Your task to perform on an android device: open app "Indeed Job Search" (install if not already installed) and enter user name: "quixotic@inbox.com" and password: "microphones" Image 0: 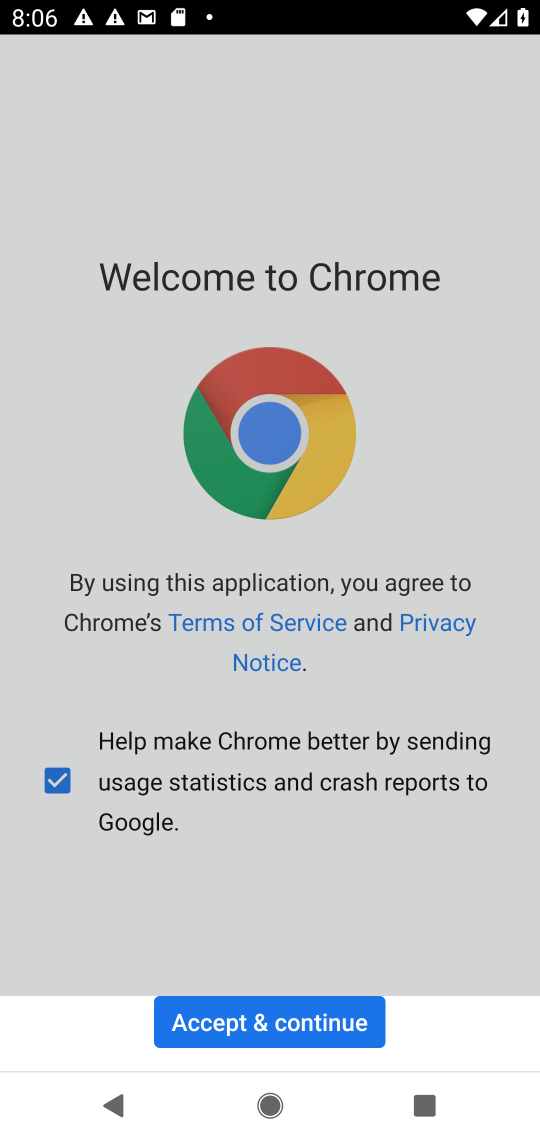
Step 0: press home button
Your task to perform on an android device: open app "Indeed Job Search" (install if not already installed) and enter user name: "quixotic@inbox.com" and password: "microphones" Image 1: 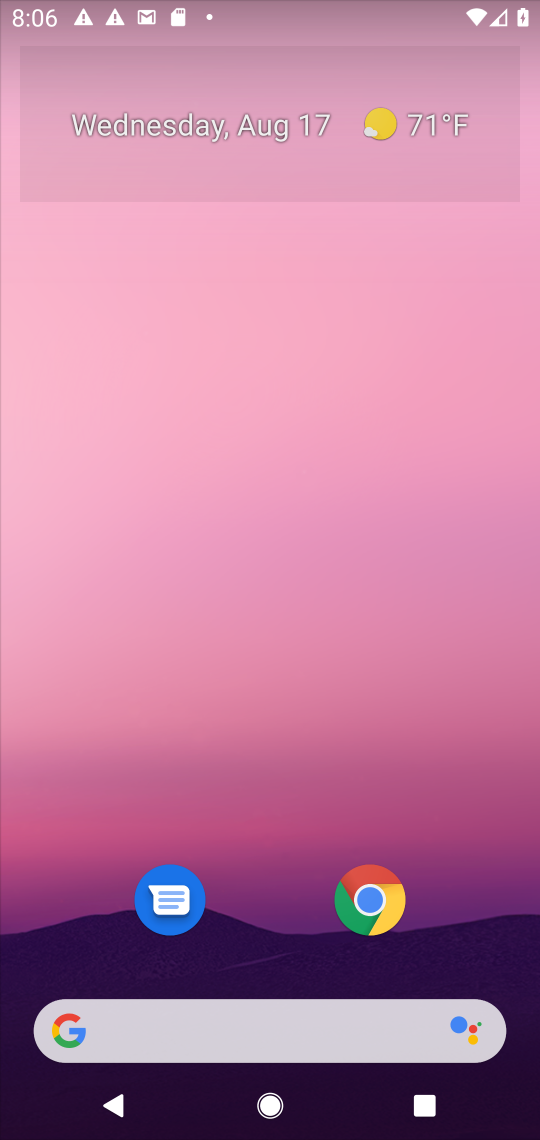
Step 1: drag from (184, 642) to (103, 2)
Your task to perform on an android device: open app "Indeed Job Search" (install if not already installed) and enter user name: "quixotic@inbox.com" and password: "microphones" Image 2: 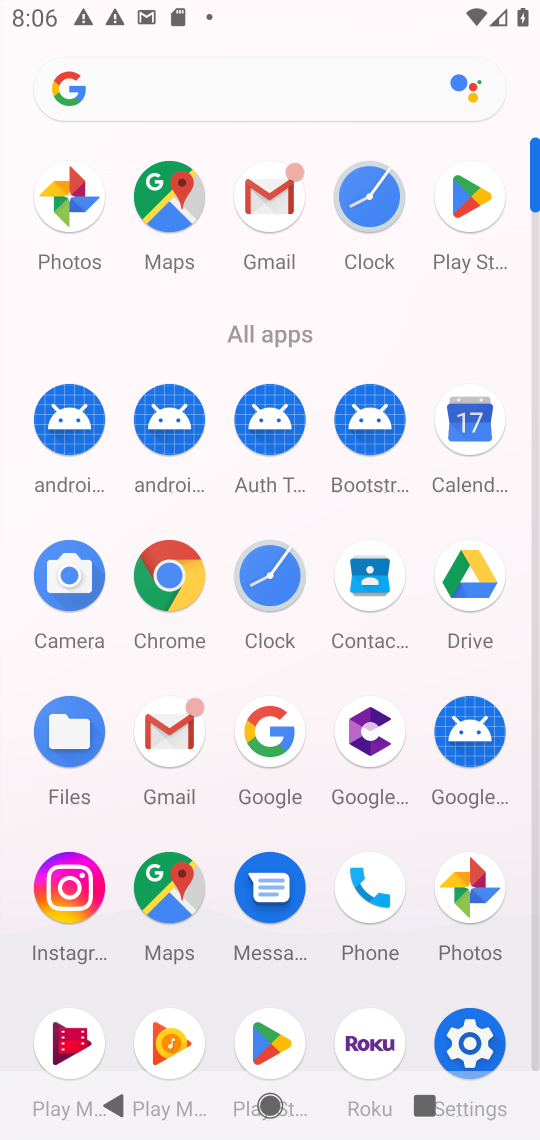
Step 2: click (465, 194)
Your task to perform on an android device: open app "Indeed Job Search" (install if not already installed) and enter user name: "quixotic@inbox.com" and password: "microphones" Image 3: 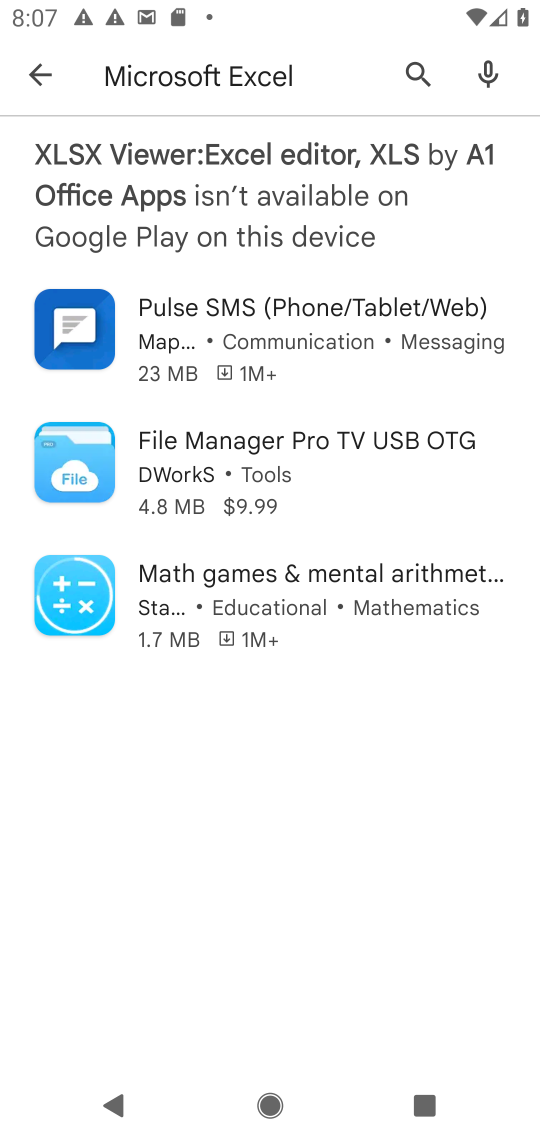
Step 3: click (33, 100)
Your task to perform on an android device: open app "Indeed Job Search" (install if not already installed) and enter user name: "quixotic@inbox.com" and password: "microphones" Image 4: 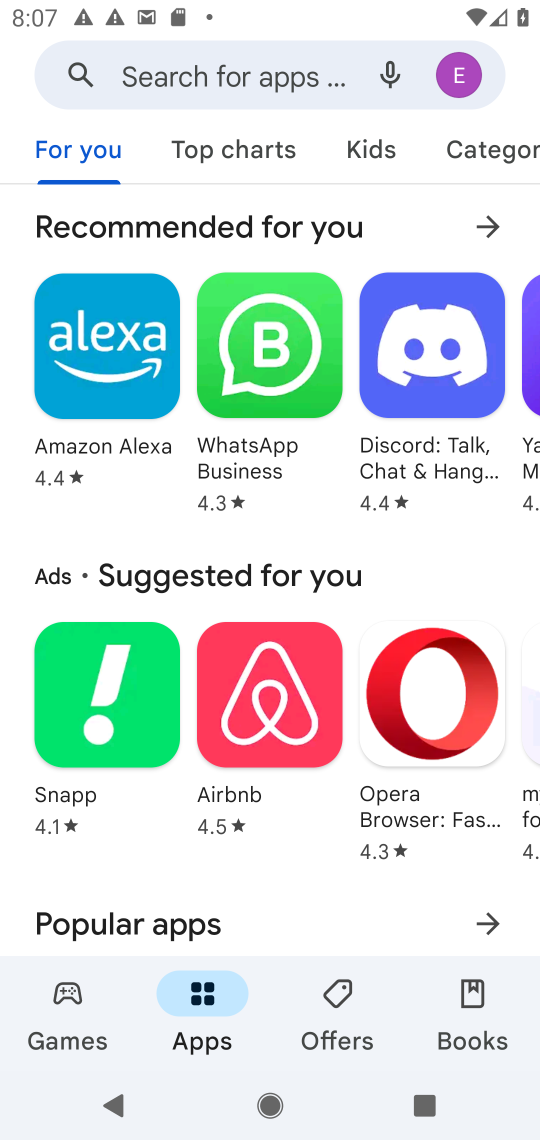
Step 4: click (225, 84)
Your task to perform on an android device: open app "Indeed Job Search" (install if not already installed) and enter user name: "quixotic@inbox.com" and password: "microphones" Image 5: 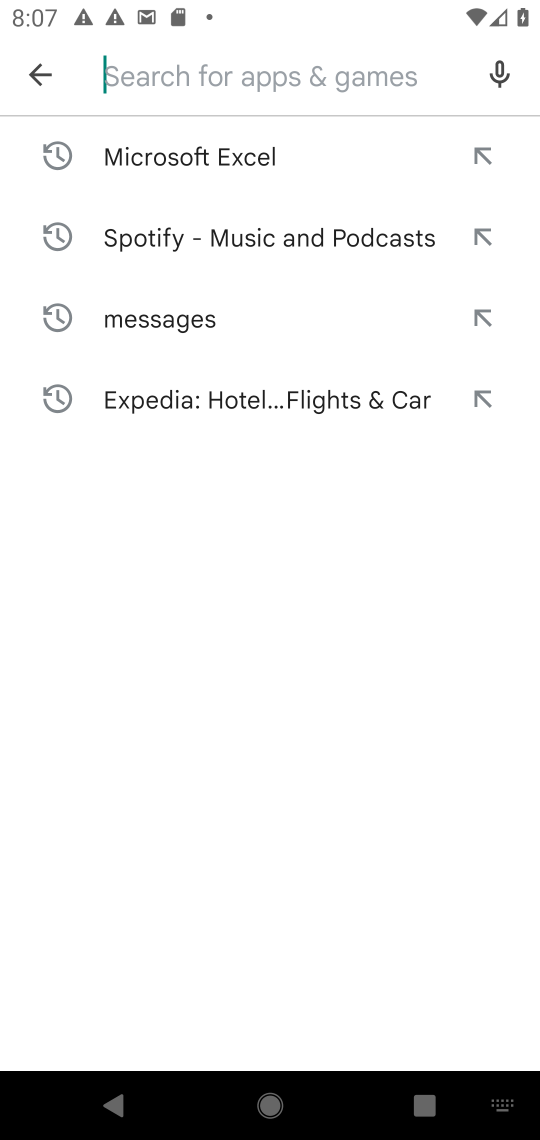
Step 5: type "Indeed Job Search"
Your task to perform on an android device: open app "Indeed Job Search" (install if not already installed) and enter user name: "quixotic@inbox.com" and password: "microphones" Image 6: 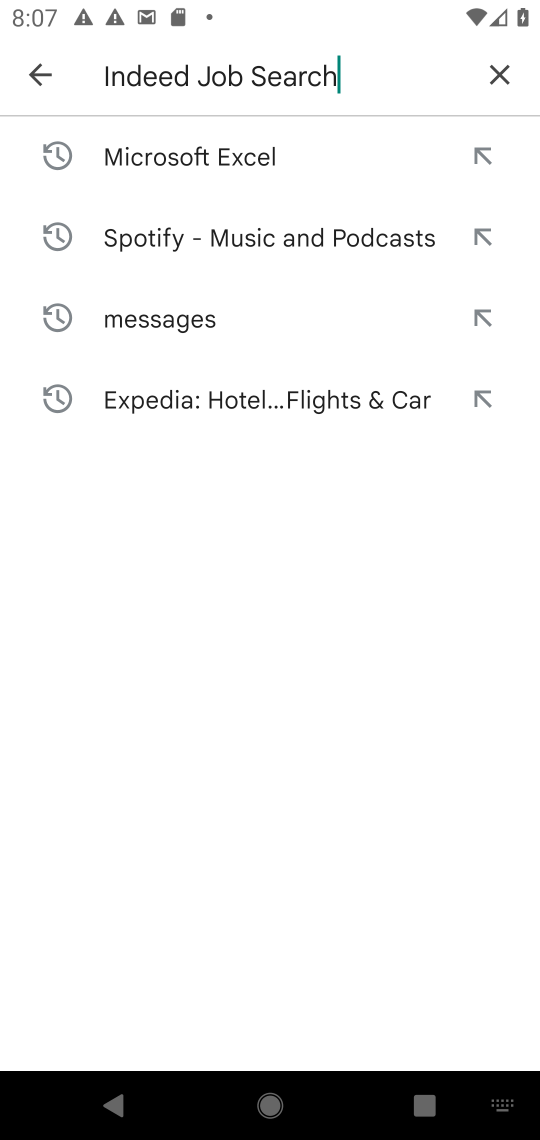
Step 6: press enter
Your task to perform on an android device: open app "Indeed Job Search" (install if not already installed) and enter user name: "quixotic@inbox.com" and password: "microphones" Image 7: 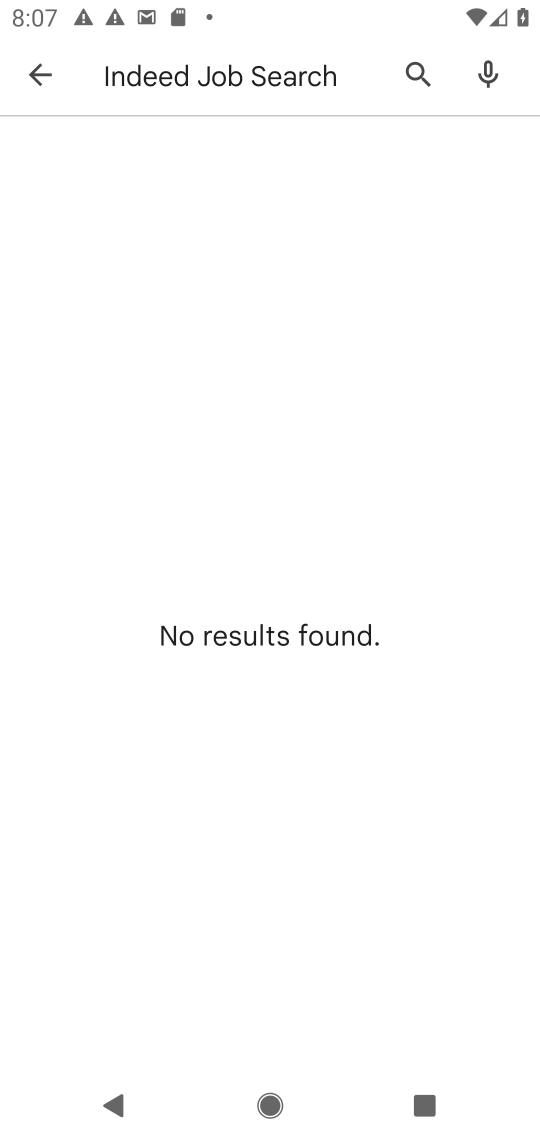
Step 7: task complete